Your task to perform on an android device: Go to calendar. Show me events next week Image 0: 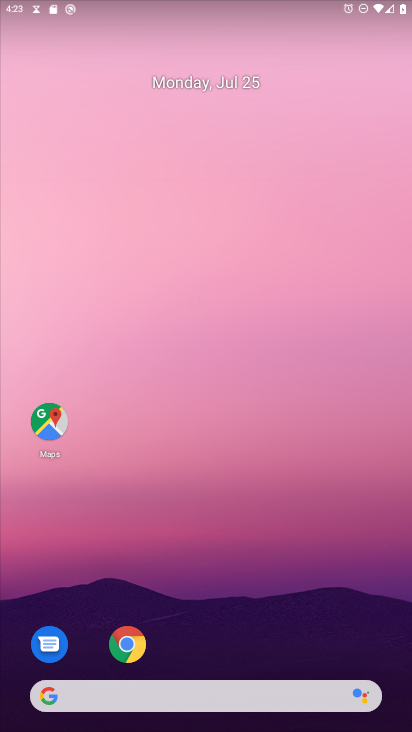
Step 0: press home button
Your task to perform on an android device: Go to calendar. Show me events next week Image 1: 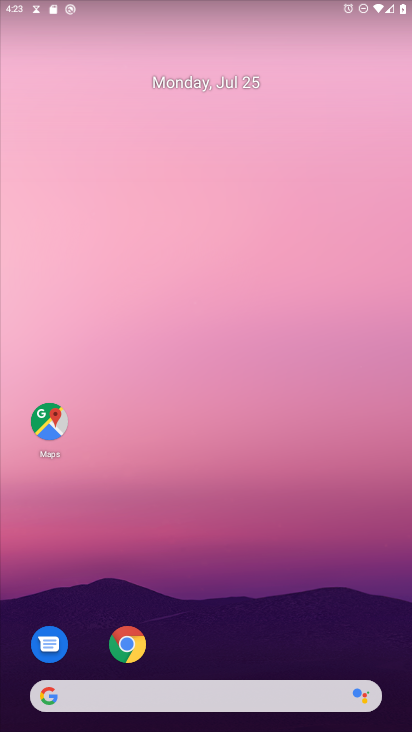
Step 1: drag from (271, 615) to (313, 110)
Your task to perform on an android device: Go to calendar. Show me events next week Image 2: 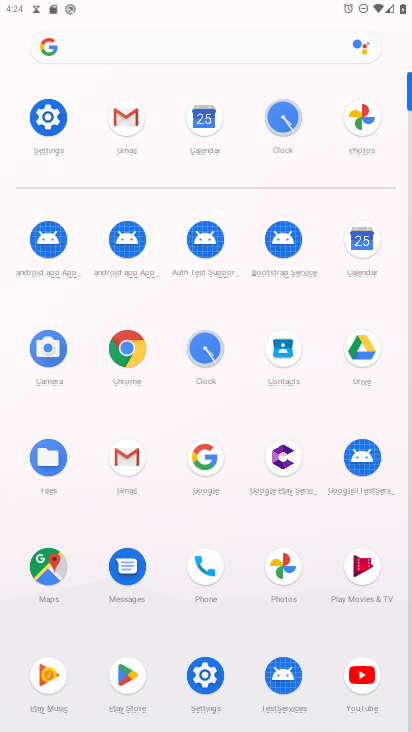
Step 2: click (349, 234)
Your task to perform on an android device: Go to calendar. Show me events next week Image 3: 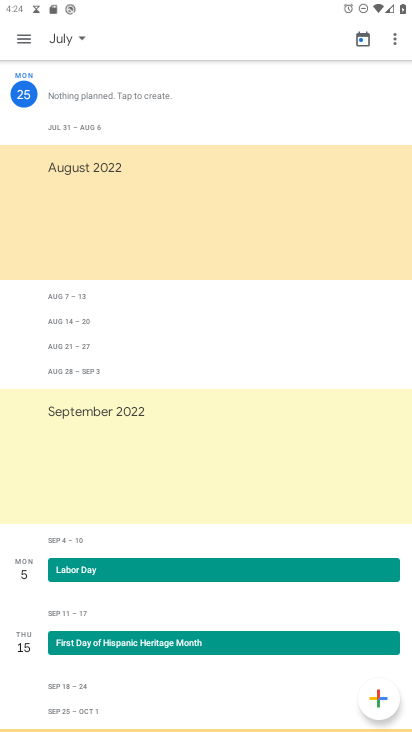
Step 3: click (30, 40)
Your task to perform on an android device: Go to calendar. Show me events next week Image 4: 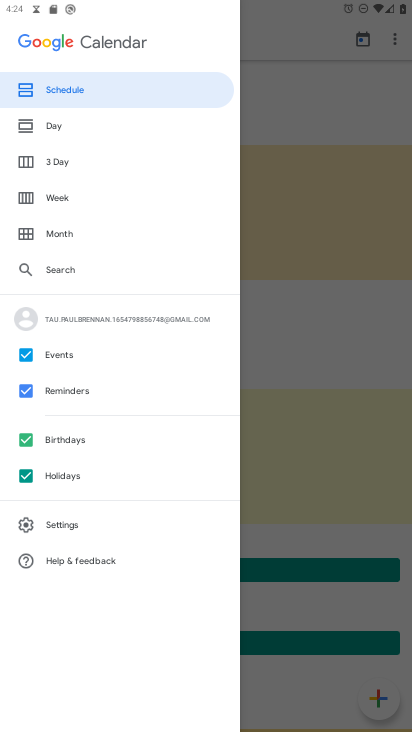
Step 4: click (46, 196)
Your task to perform on an android device: Go to calendar. Show me events next week Image 5: 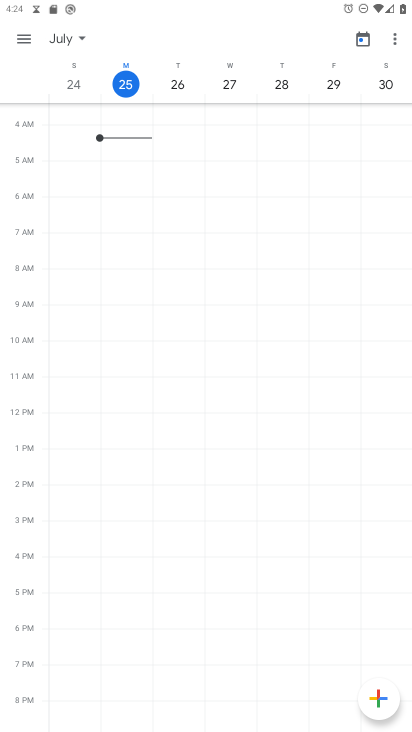
Step 5: task complete